Your task to perform on an android device: Search for vegetarian restaurants on Maps Image 0: 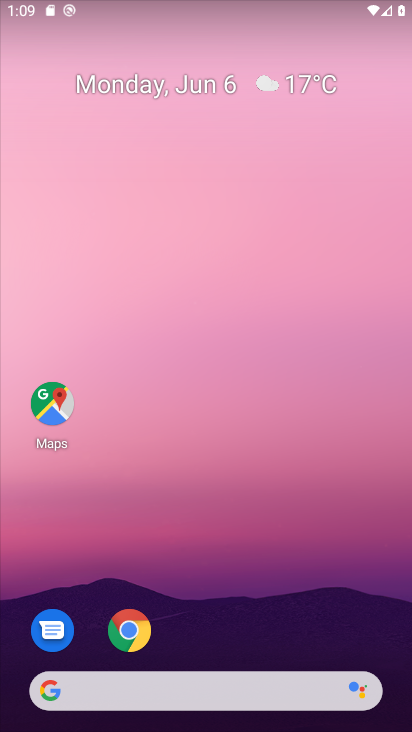
Step 0: click (37, 413)
Your task to perform on an android device: Search for vegetarian restaurants on Maps Image 1: 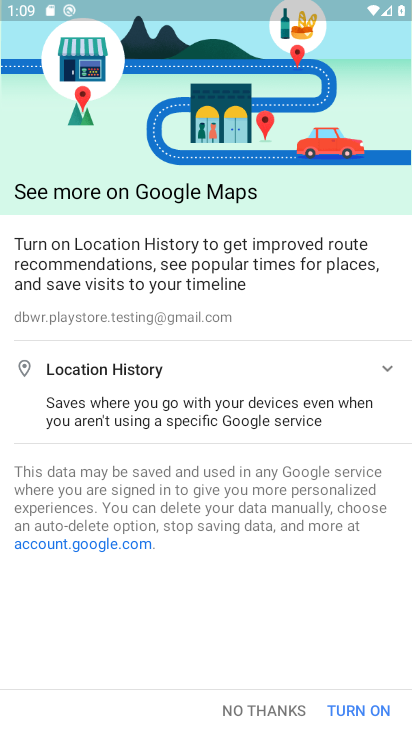
Step 1: click (247, 718)
Your task to perform on an android device: Search for vegetarian restaurants on Maps Image 2: 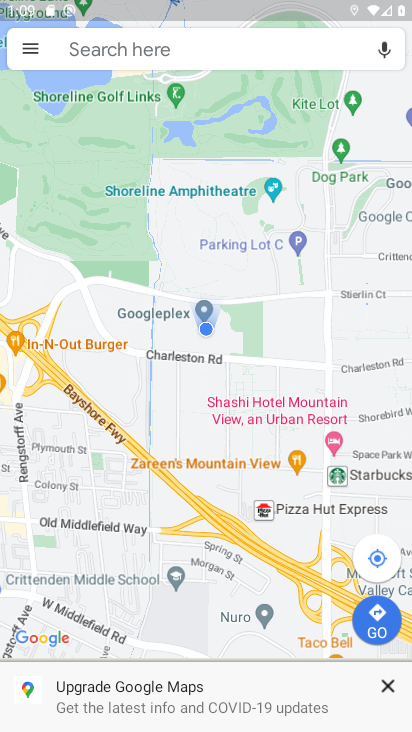
Step 2: click (215, 57)
Your task to perform on an android device: Search for vegetarian restaurants on Maps Image 3: 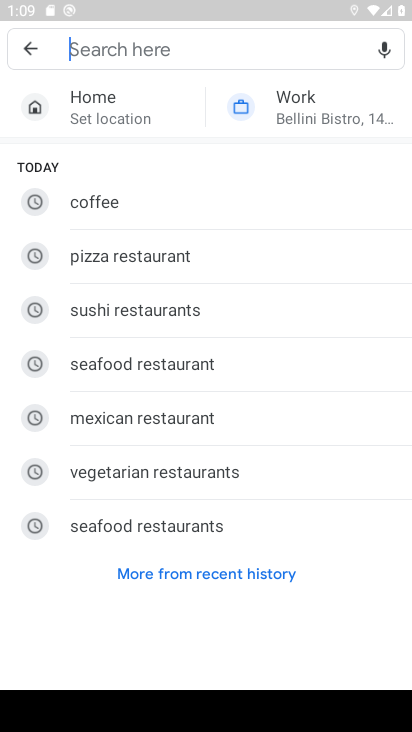
Step 3: click (139, 475)
Your task to perform on an android device: Search for vegetarian restaurants on Maps Image 4: 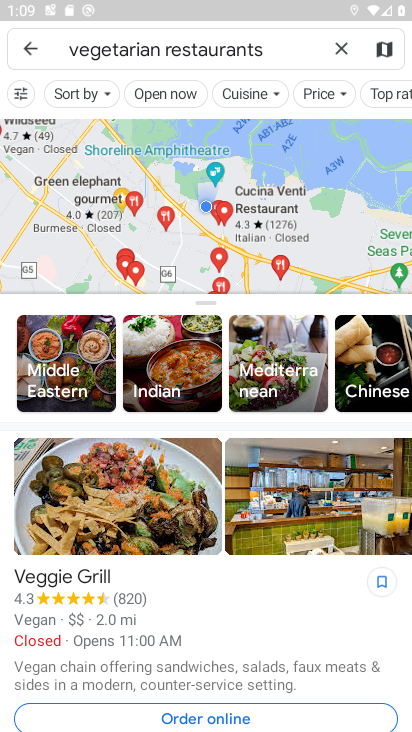
Step 4: task complete